Your task to perform on an android device: Open calendar and show me the first week of next month Image 0: 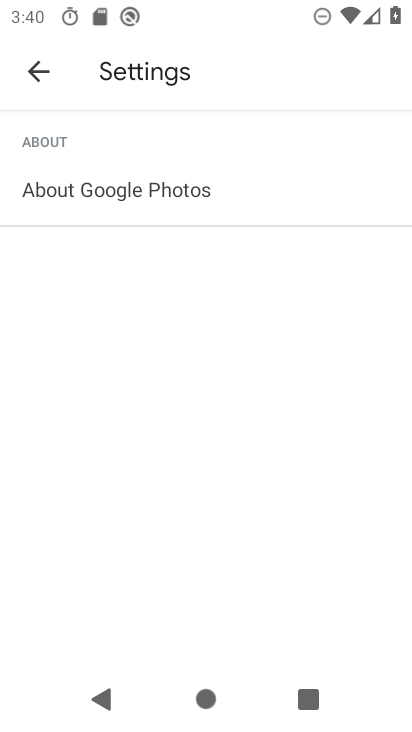
Step 0: press home button
Your task to perform on an android device: Open calendar and show me the first week of next month Image 1: 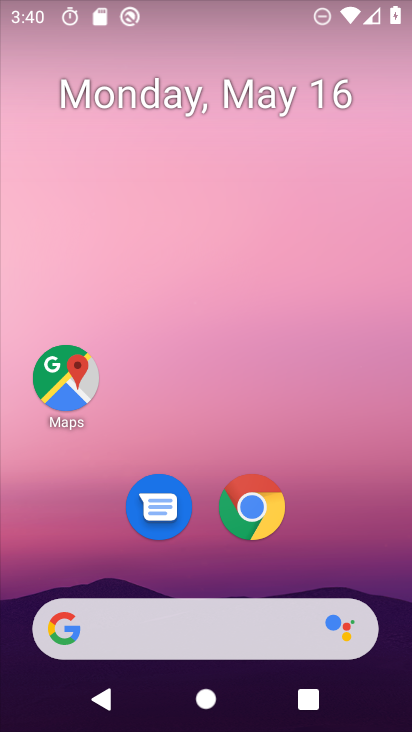
Step 1: drag from (344, 501) to (327, 29)
Your task to perform on an android device: Open calendar and show me the first week of next month Image 2: 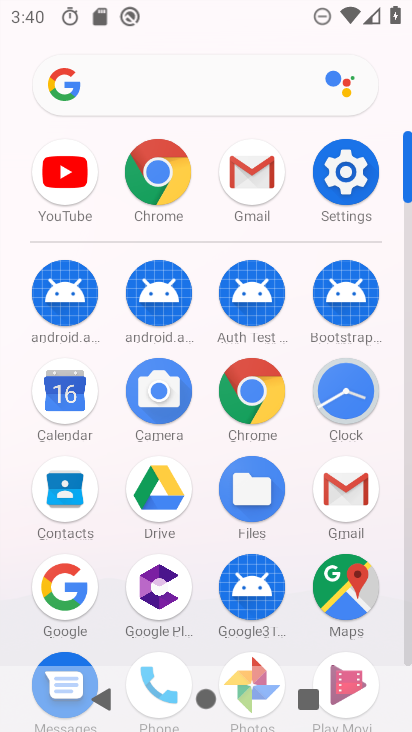
Step 2: click (53, 412)
Your task to perform on an android device: Open calendar and show me the first week of next month Image 3: 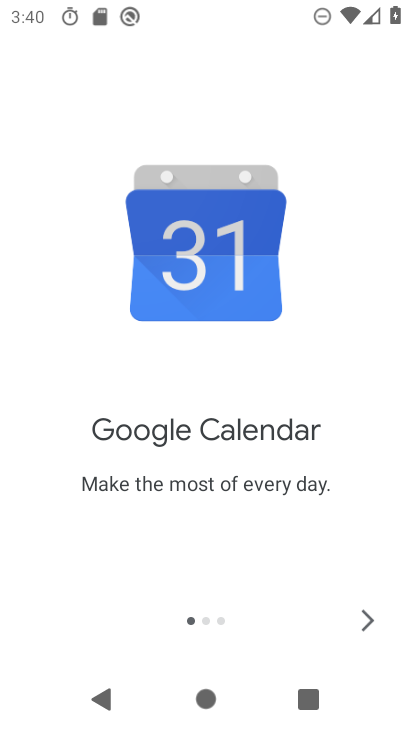
Step 3: click (368, 619)
Your task to perform on an android device: Open calendar and show me the first week of next month Image 4: 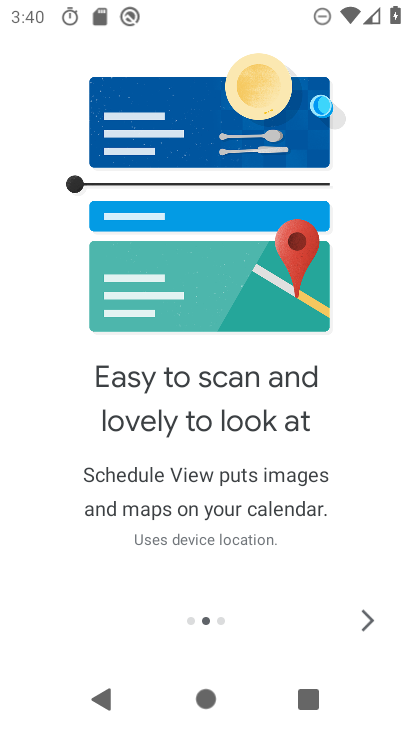
Step 4: click (373, 605)
Your task to perform on an android device: Open calendar and show me the first week of next month Image 5: 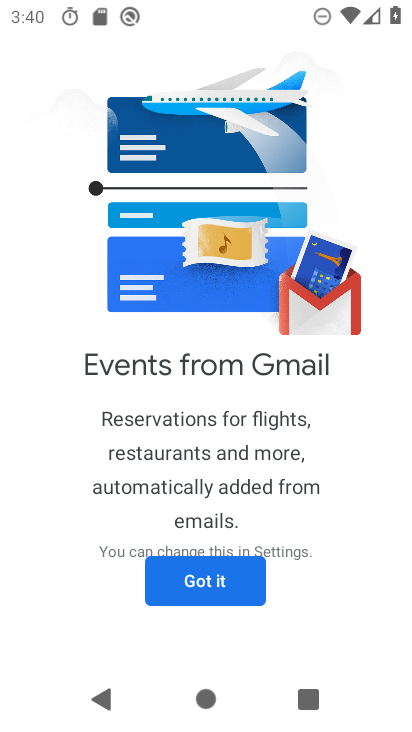
Step 5: click (214, 582)
Your task to perform on an android device: Open calendar and show me the first week of next month Image 6: 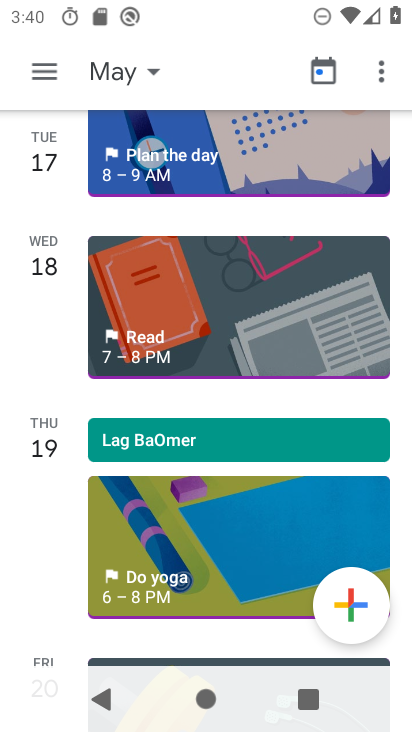
Step 6: click (118, 77)
Your task to perform on an android device: Open calendar and show me the first week of next month Image 7: 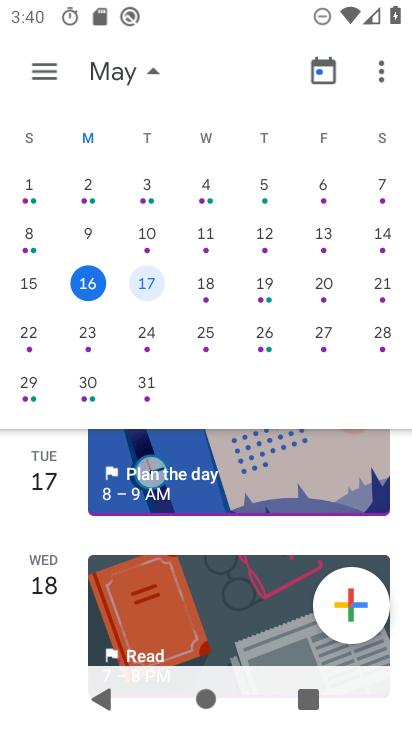
Step 7: drag from (310, 230) to (1, 300)
Your task to perform on an android device: Open calendar and show me the first week of next month Image 8: 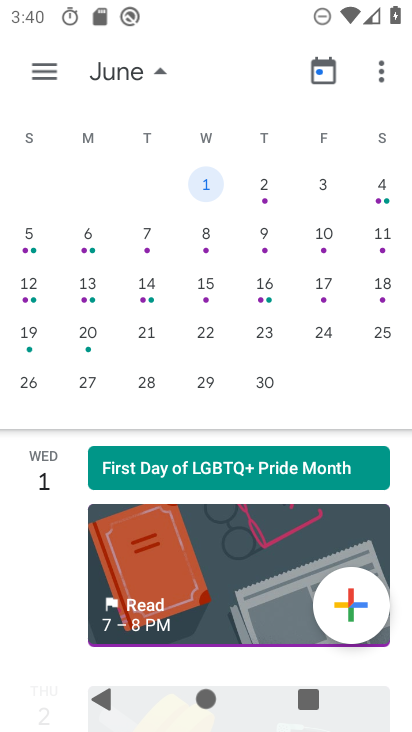
Step 8: click (145, 252)
Your task to perform on an android device: Open calendar and show me the first week of next month Image 9: 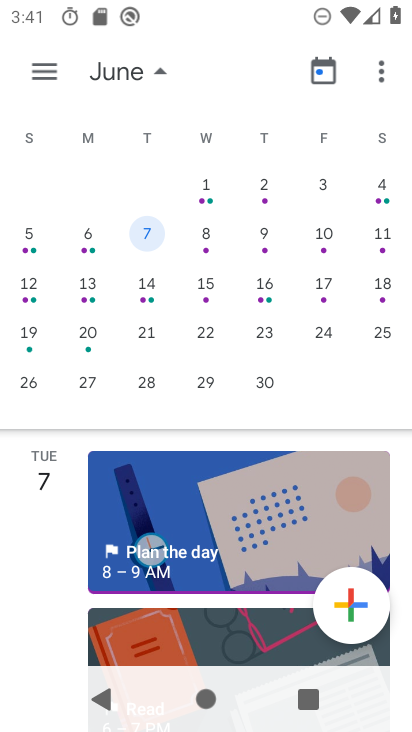
Step 9: task complete